Your task to perform on an android device: toggle data saver in the chrome app Image 0: 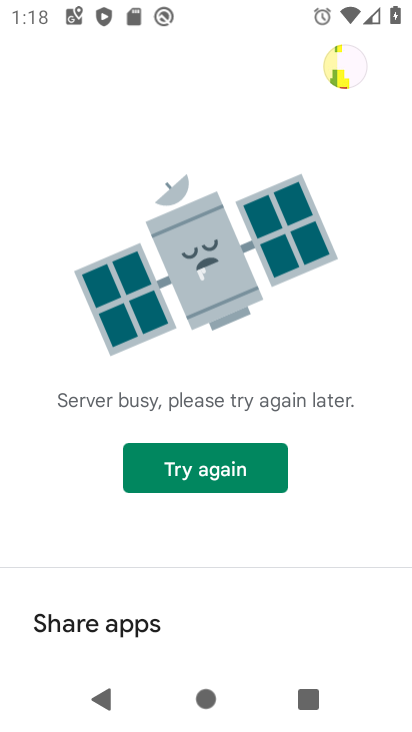
Step 0: press home button
Your task to perform on an android device: toggle data saver in the chrome app Image 1: 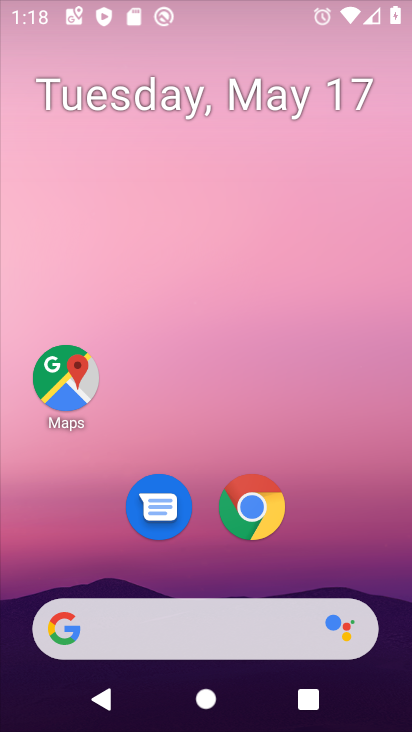
Step 1: drag from (310, 597) to (307, 267)
Your task to perform on an android device: toggle data saver in the chrome app Image 2: 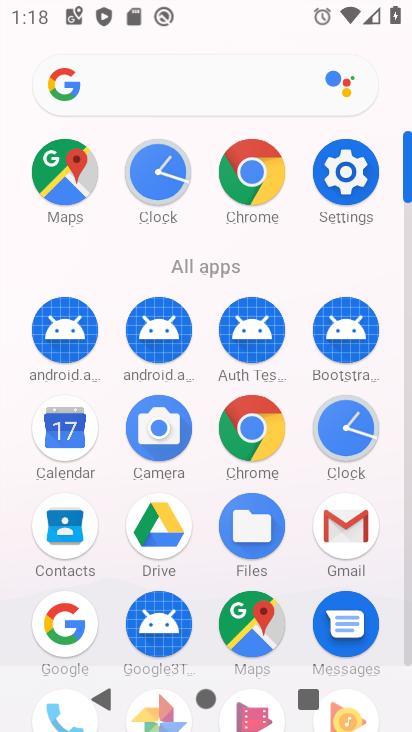
Step 2: click (343, 167)
Your task to perform on an android device: toggle data saver in the chrome app Image 3: 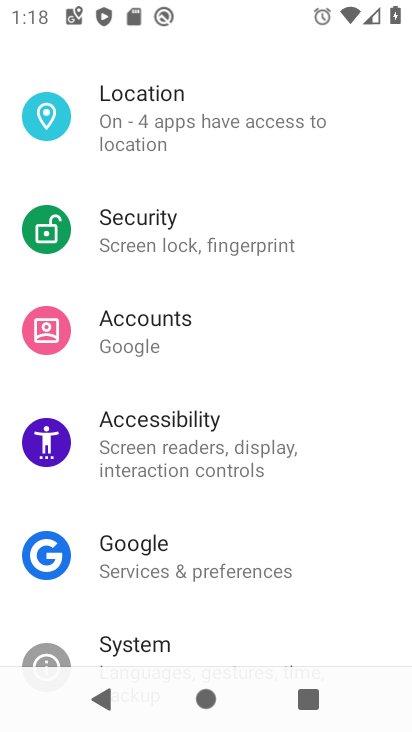
Step 3: press home button
Your task to perform on an android device: toggle data saver in the chrome app Image 4: 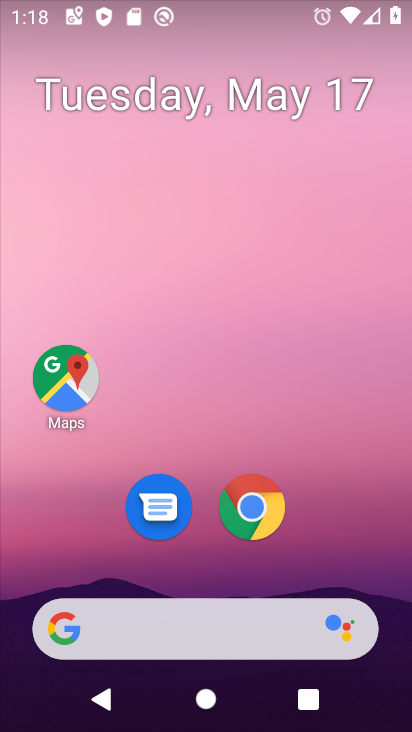
Step 4: click (257, 498)
Your task to perform on an android device: toggle data saver in the chrome app Image 5: 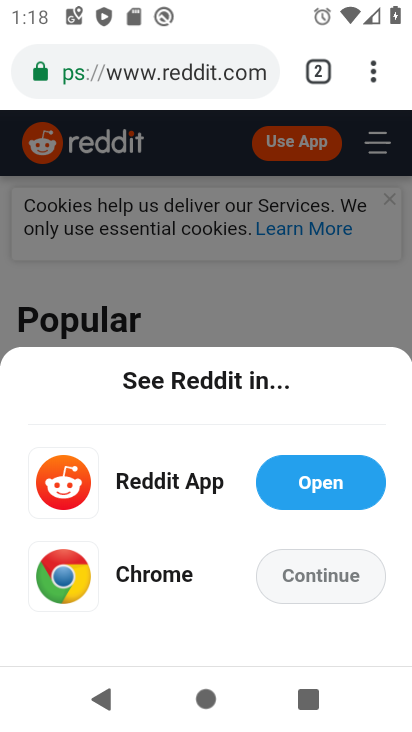
Step 5: click (376, 50)
Your task to perform on an android device: toggle data saver in the chrome app Image 6: 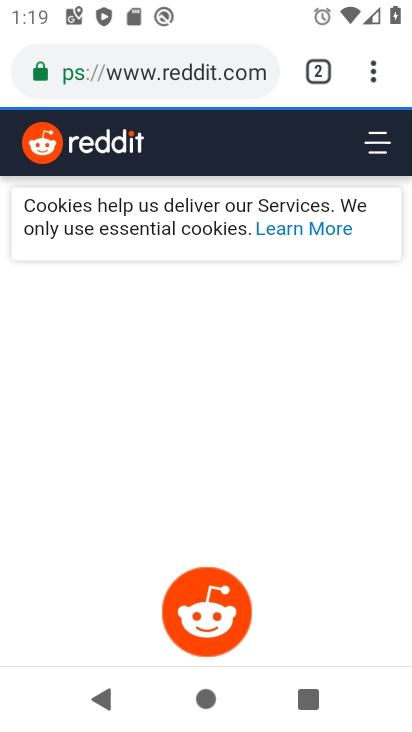
Step 6: click (369, 70)
Your task to perform on an android device: toggle data saver in the chrome app Image 7: 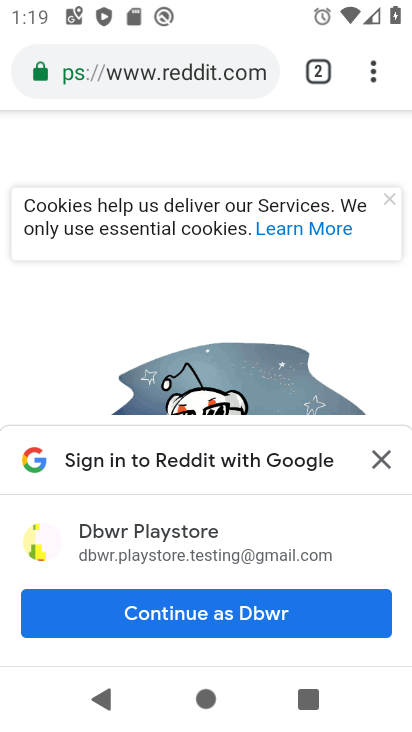
Step 7: click (368, 70)
Your task to perform on an android device: toggle data saver in the chrome app Image 8: 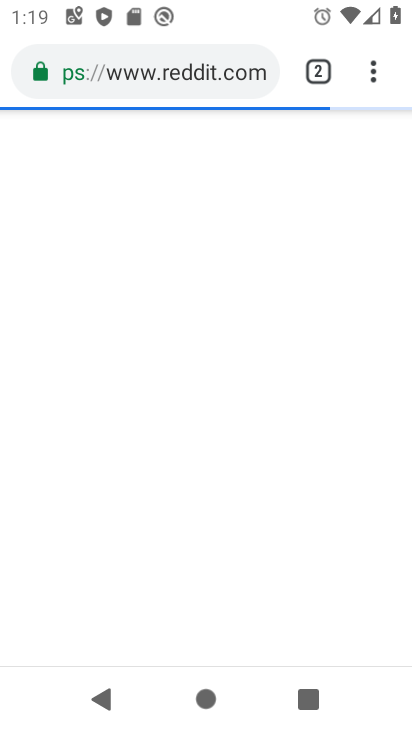
Step 8: click (377, 67)
Your task to perform on an android device: toggle data saver in the chrome app Image 9: 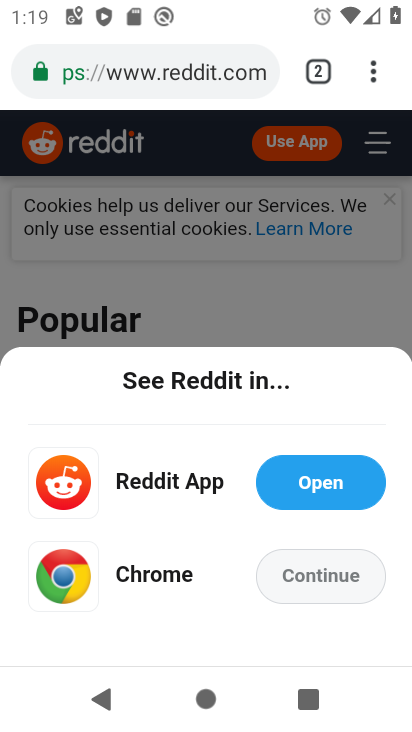
Step 9: click (383, 71)
Your task to perform on an android device: toggle data saver in the chrome app Image 10: 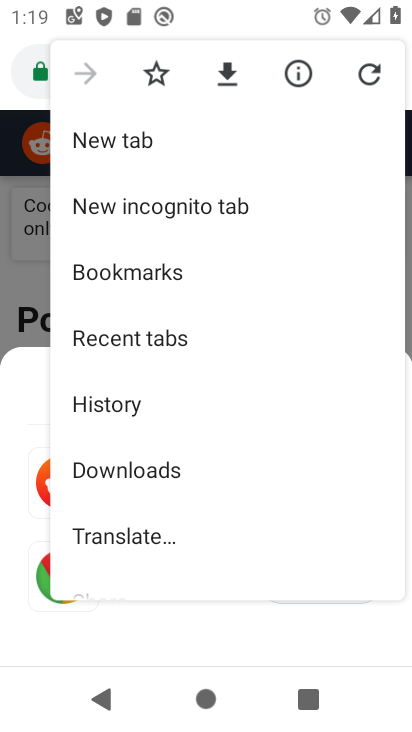
Step 10: drag from (219, 506) to (260, 206)
Your task to perform on an android device: toggle data saver in the chrome app Image 11: 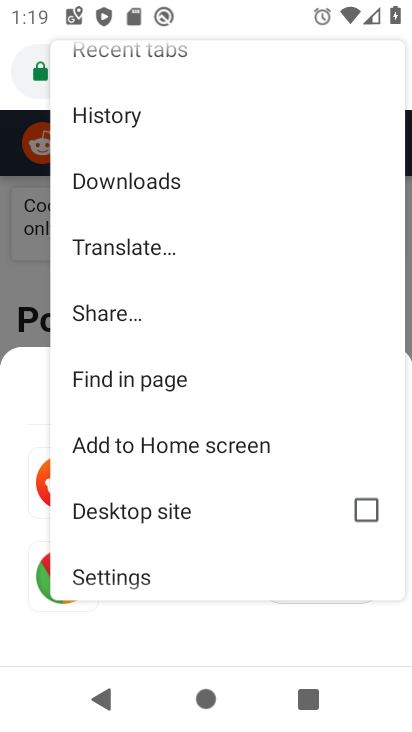
Step 11: drag from (173, 525) to (212, 288)
Your task to perform on an android device: toggle data saver in the chrome app Image 12: 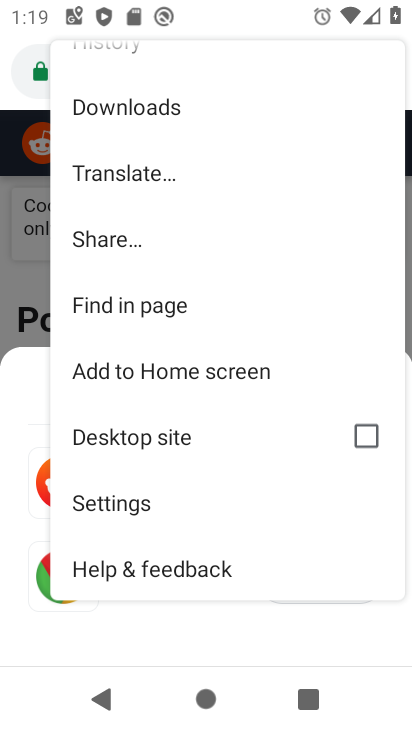
Step 12: click (116, 505)
Your task to perform on an android device: toggle data saver in the chrome app Image 13: 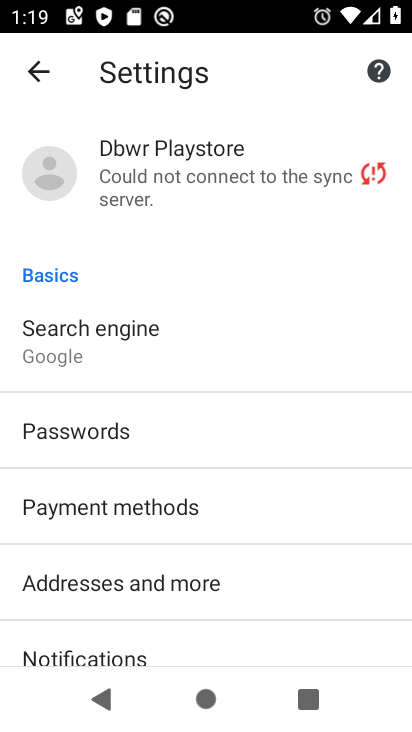
Step 13: drag from (180, 586) to (217, 328)
Your task to perform on an android device: toggle data saver in the chrome app Image 14: 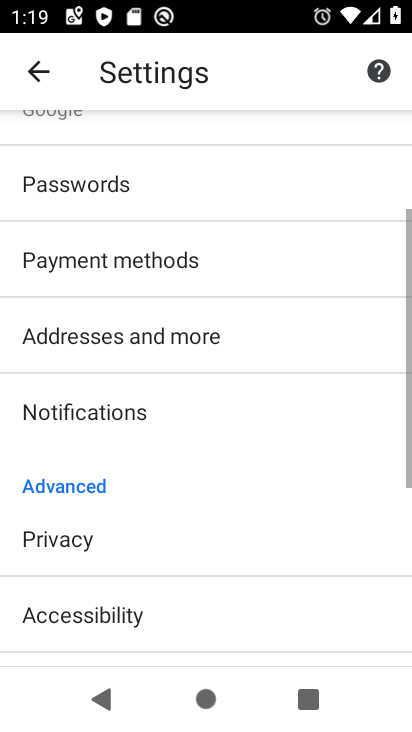
Step 14: drag from (200, 587) to (245, 309)
Your task to perform on an android device: toggle data saver in the chrome app Image 15: 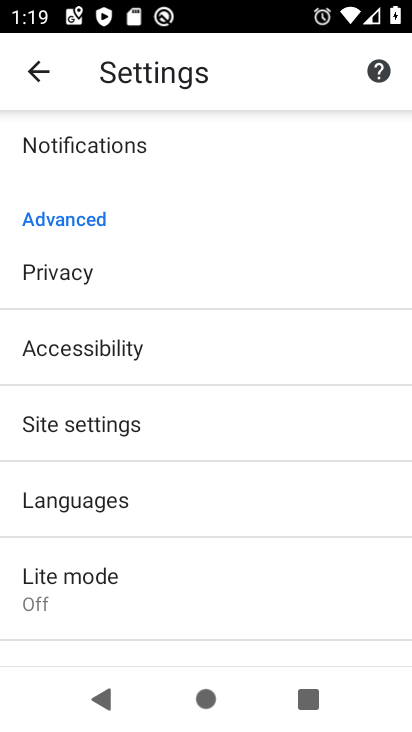
Step 15: click (80, 593)
Your task to perform on an android device: toggle data saver in the chrome app Image 16: 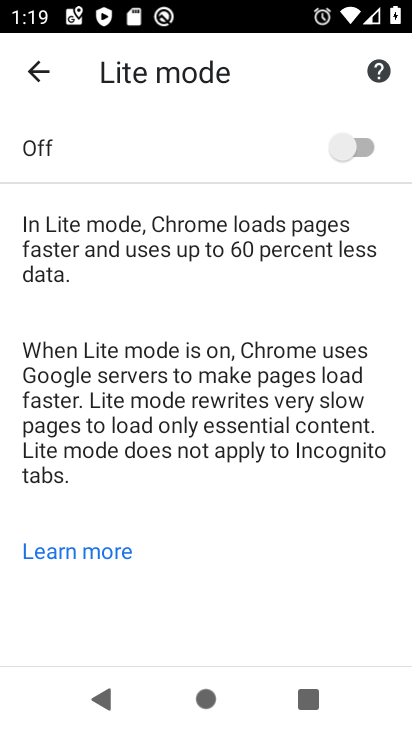
Step 16: click (364, 142)
Your task to perform on an android device: toggle data saver in the chrome app Image 17: 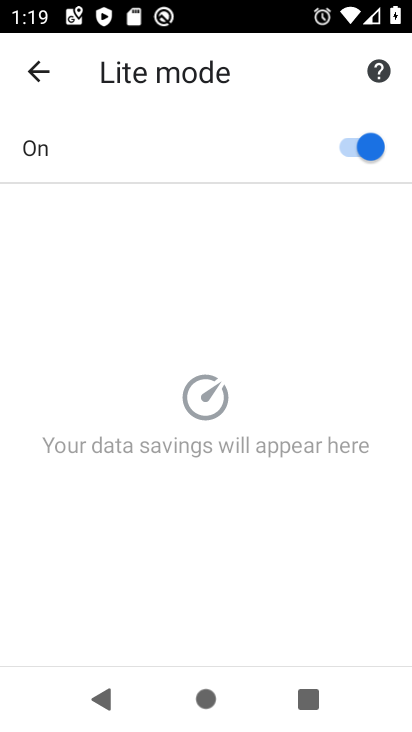
Step 17: task complete